Your task to perform on an android device: Open location settings Image 0: 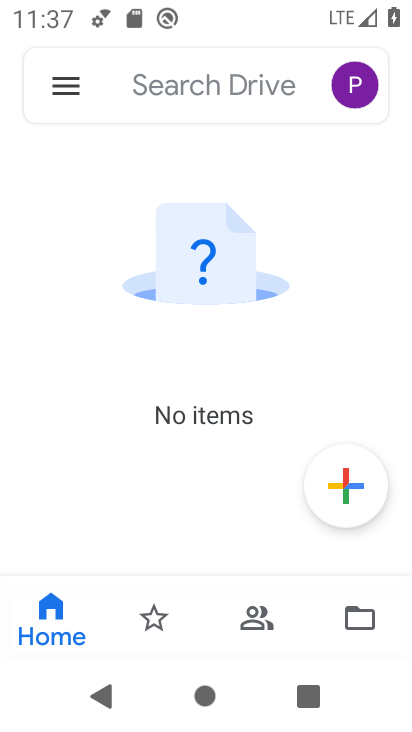
Step 0: press home button
Your task to perform on an android device: Open location settings Image 1: 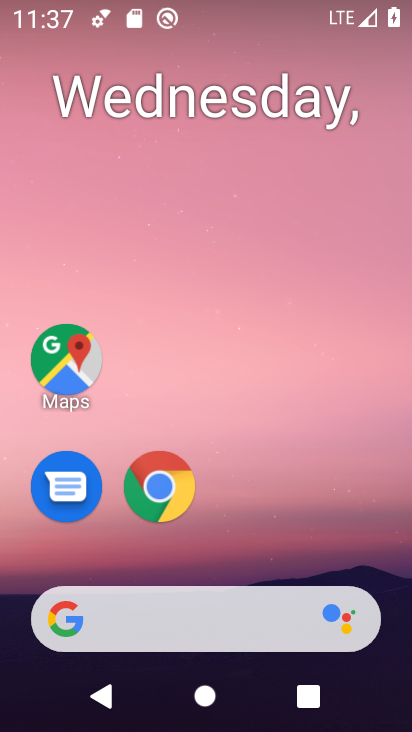
Step 1: drag from (383, 225) to (383, 71)
Your task to perform on an android device: Open location settings Image 2: 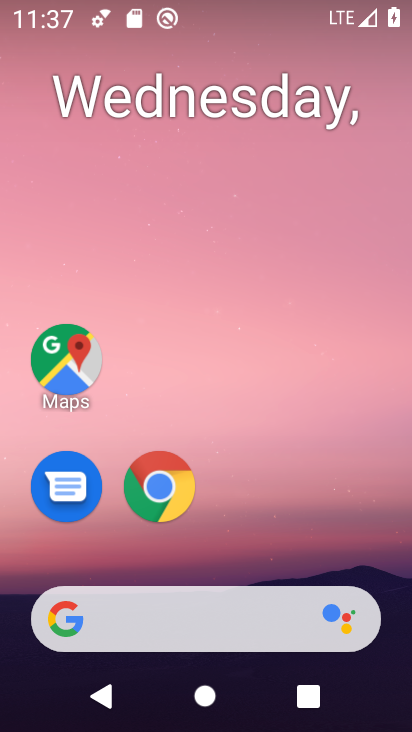
Step 2: drag from (331, 462) to (327, 2)
Your task to perform on an android device: Open location settings Image 3: 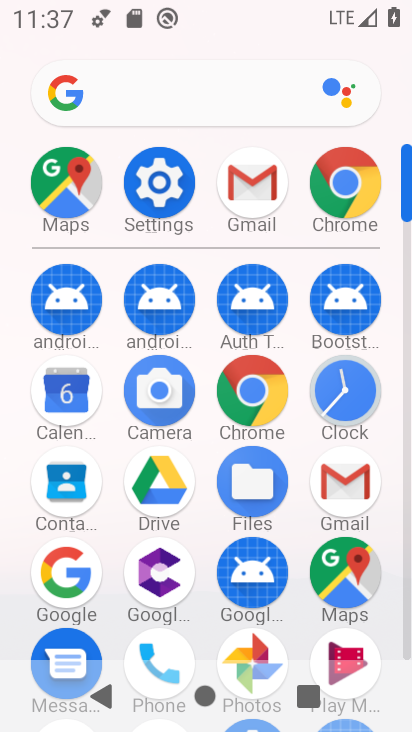
Step 3: click (158, 209)
Your task to perform on an android device: Open location settings Image 4: 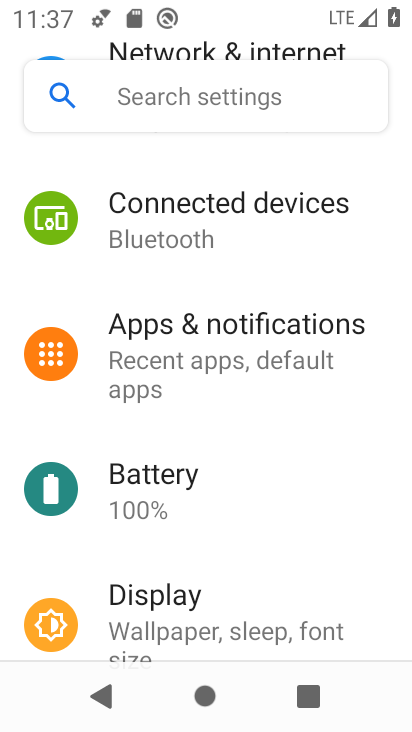
Step 4: drag from (352, 245) to (379, 482)
Your task to perform on an android device: Open location settings Image 5: 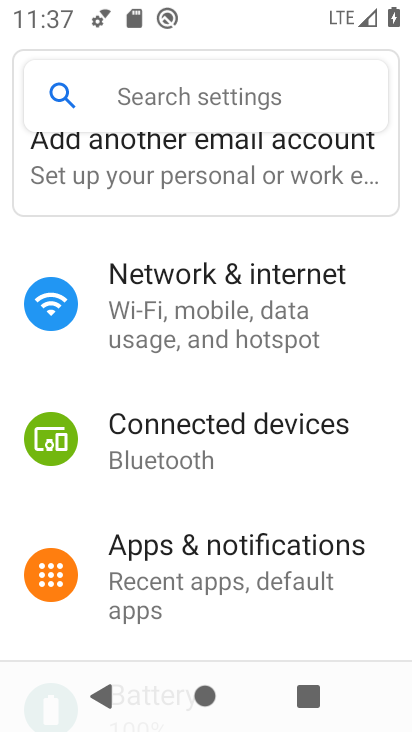
Step 5: drag from (373, 492) to (378, 347)
Your task to perform on an android device: Open location settings Image 6: 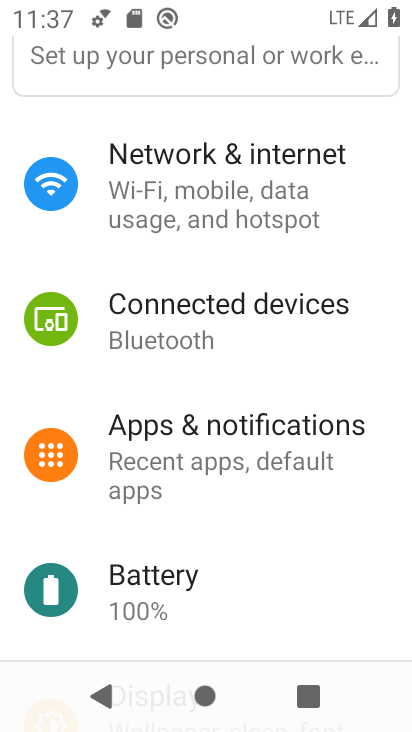
Step 6: drag from (358, 561) to (363, 409)
Your task to perform on an android device: Open location settings Image 7: 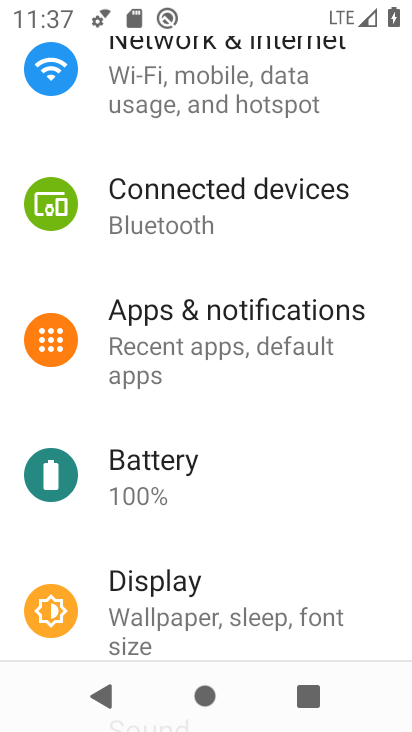
Step 7: drag from (358, 412) to (368, 207)
Your task to perform on an android device: Open location settings Image 8: 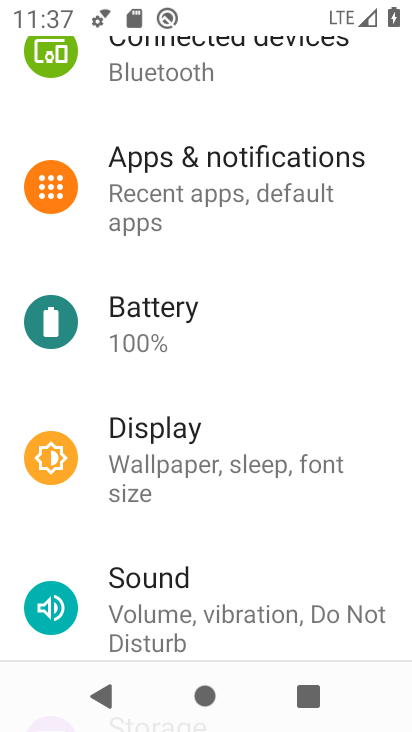
Step 8: drag from (300, 515) to (330, 351)
Your task to perform on an android device: Open location settings Image 9: 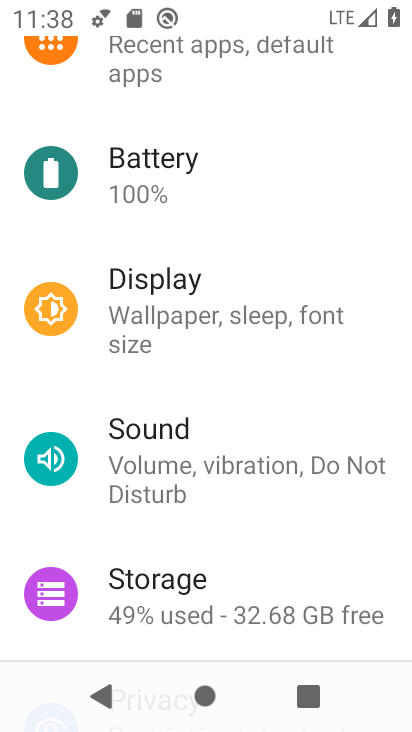
Step 9: drag from (324, 526) to (330, 330)
Your task to perform on an android device: Open location settings Image 10: 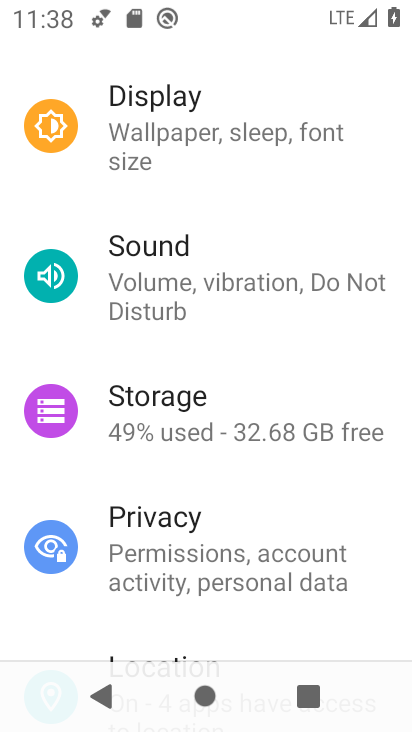
Step 10: drag from (351, 500) to (363, 311)
Your task to perform on an android device: Open location settings Image 11: 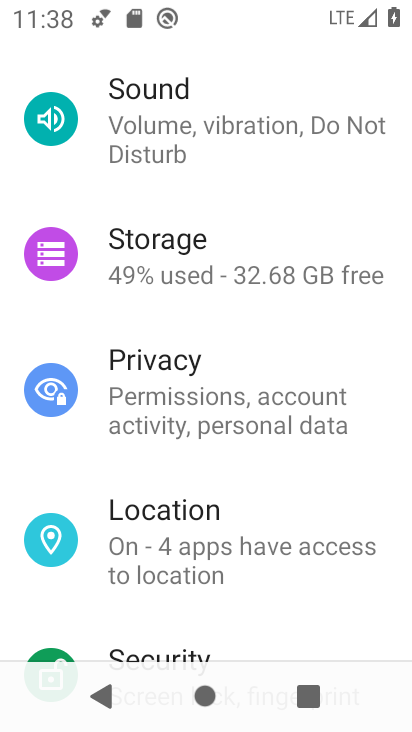
Step 11: drag from (343, 518) to (354, 324)
Your task to perform on an android device: Open location settings Image 12: 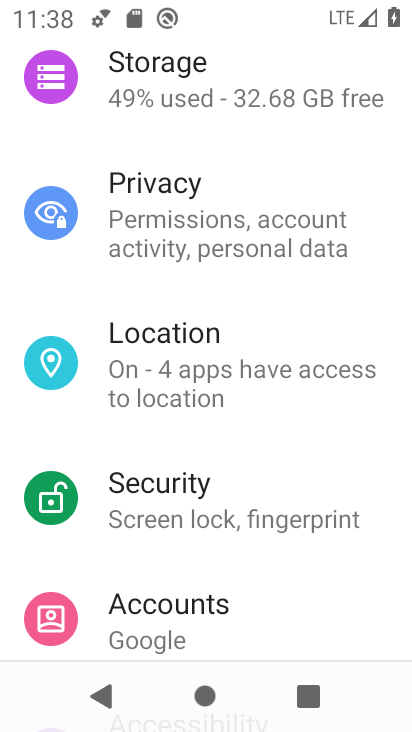
Step 12: click (250, 378)
Your task to perform on an android device: Open location settings Image 13: 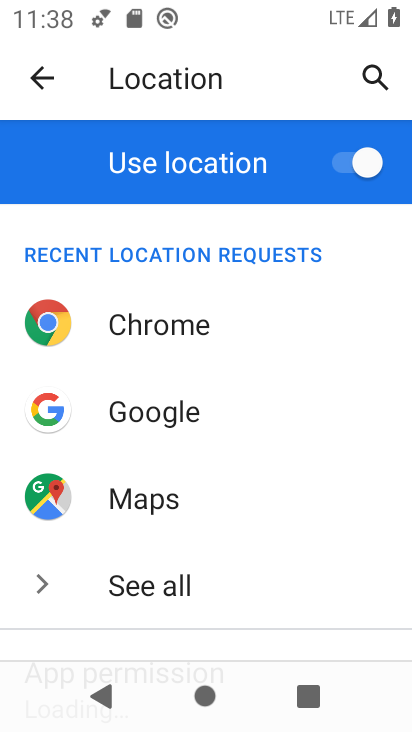
Step 13: task complete